Your task to perform on an android device: allow notifications from all sites in the chrome app Image 0: 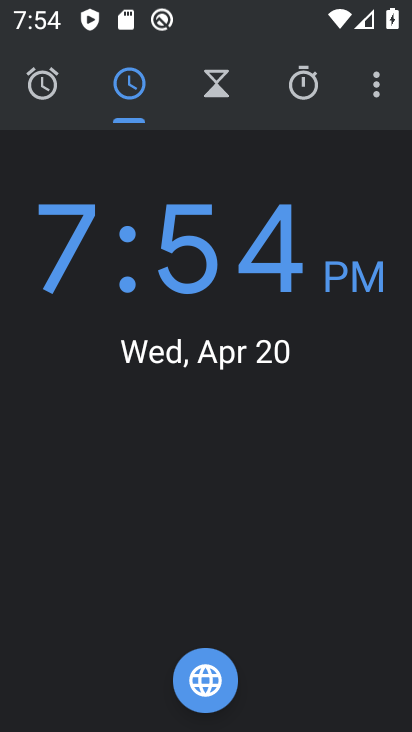
Step 0: press home button
Your task to perform on an android device: allow notifications from all sites in the chrome app Image 1: 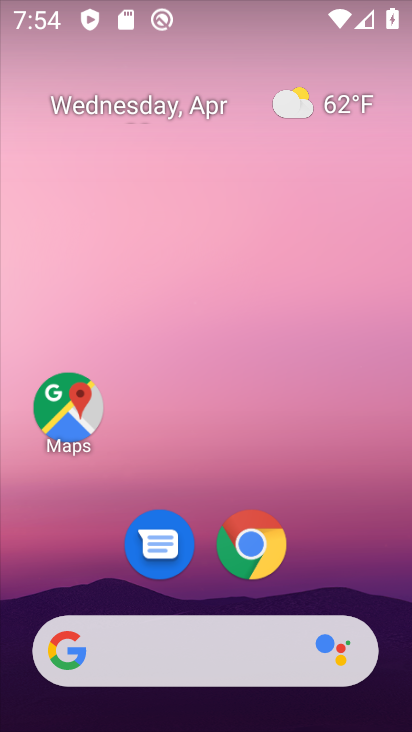
Step 1: click (258, 538)
Your task to perform on an android device: allow notifications from all sites in the chrome app Image 2: 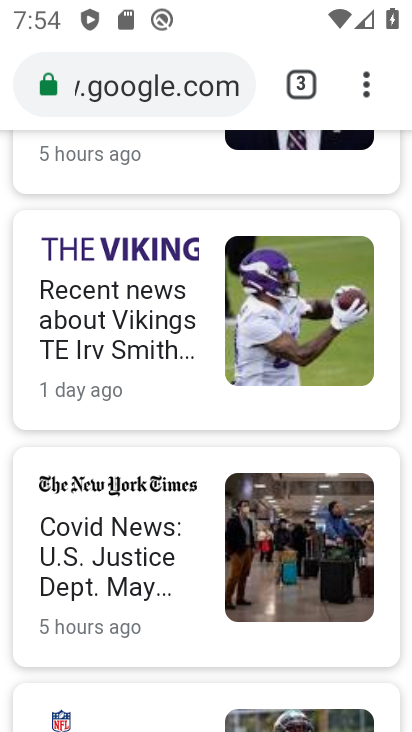
Step 2: drag from (365, 84) to (126, 593)
Your task to perform on an android device: allow notifications from all sites in the chrome app Image 3: 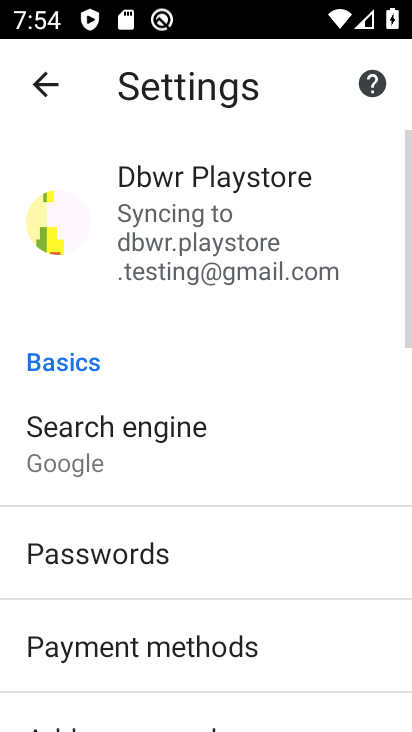
Step 3: drag from (357, 668) to (331, 223)
Your task to perform on an android device: allow notifications from all sites in the chrome app Image 4: 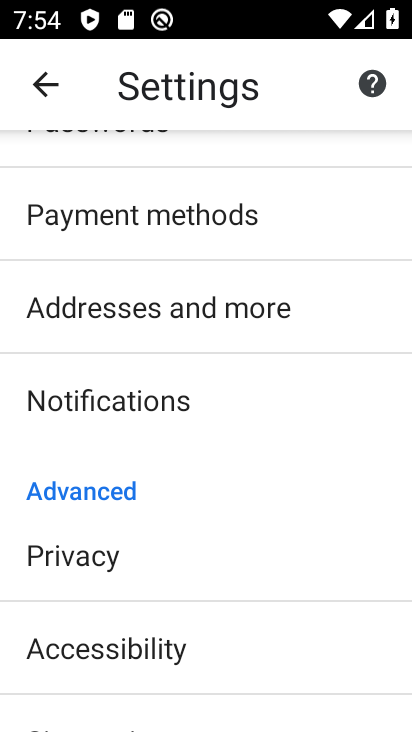
Step 4: click (129, 396)
Your task to perform on an android device: allow notifications from all sites in the chrome app Image 5: 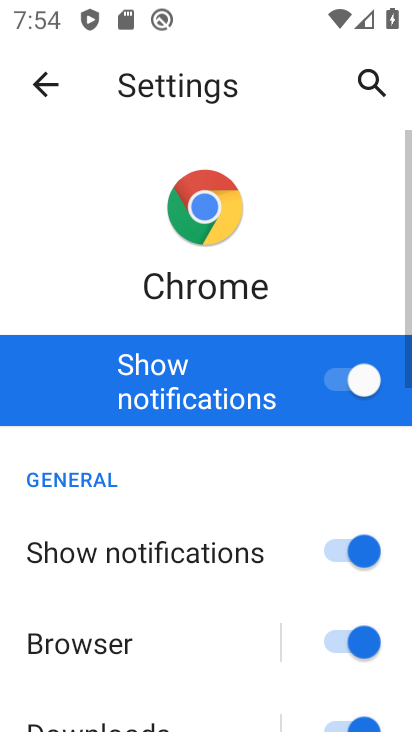
Step 5: task complete